Your task to perform on an android device: open a new tab in the chrome app Image 0: 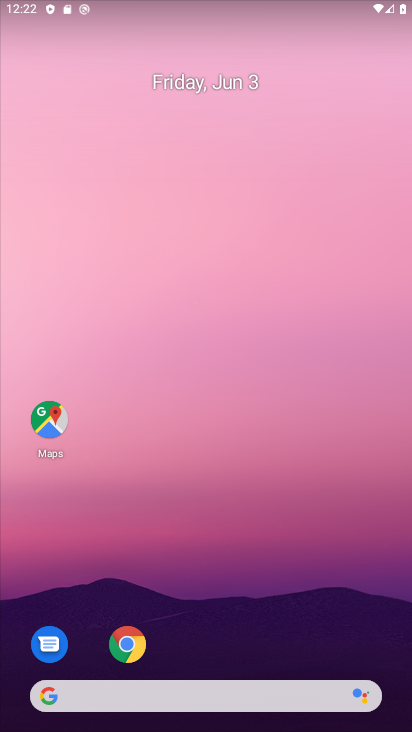
Step 0: click (136, 639)
Your task to perform on an android device: open a new tab in the chrome app Image 1: 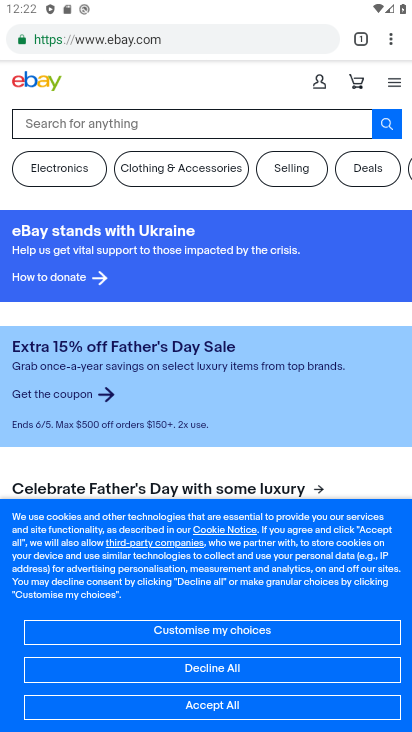
Step 1: click (388, 35)
Your task to perform on an android device: open a new tab in the chrome app Image 2: 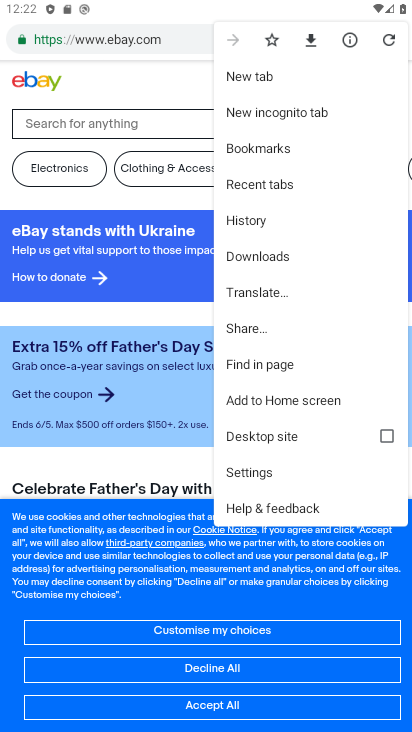
Step 2: click (262, 78)
Your task to perform on an android device: open a new tab in the chrome app Image 3: 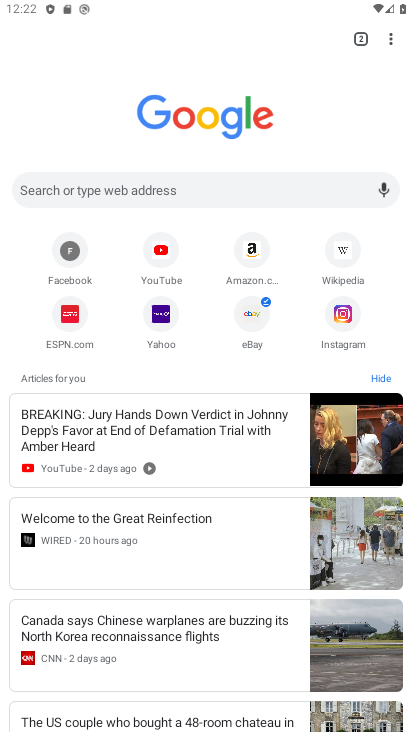
Step 3: task complete